Your task to perform on an android device: change keyboard looks Image 0: 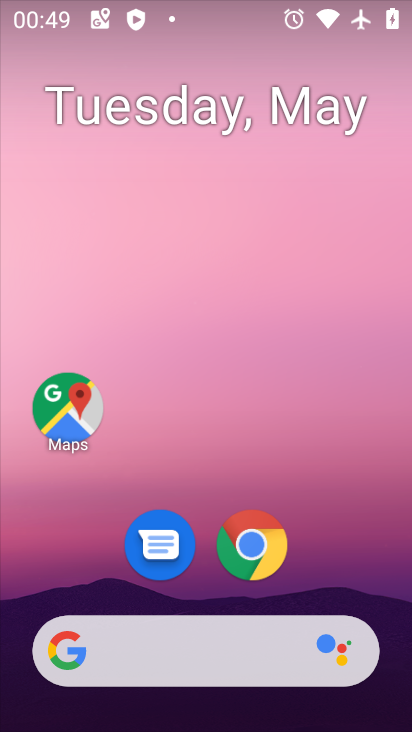
Step 0: drag from (335, 588) to (334, 38)
Your task to perform on an android device: change keyboard looks Image 1: 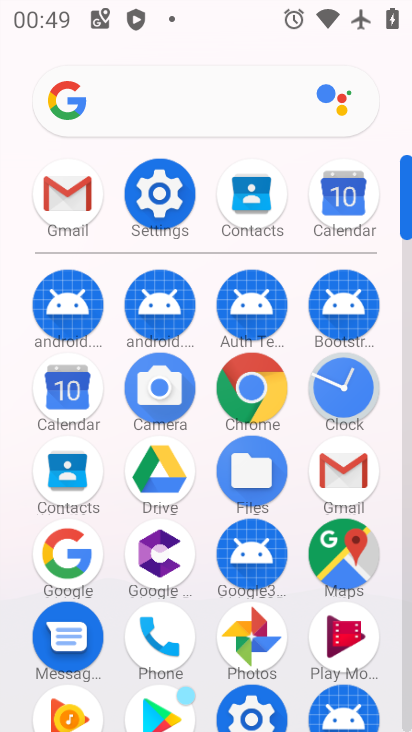
Step 1: click (159, 197)
Your task to perform on an android device: change keyboard looks Image 2: 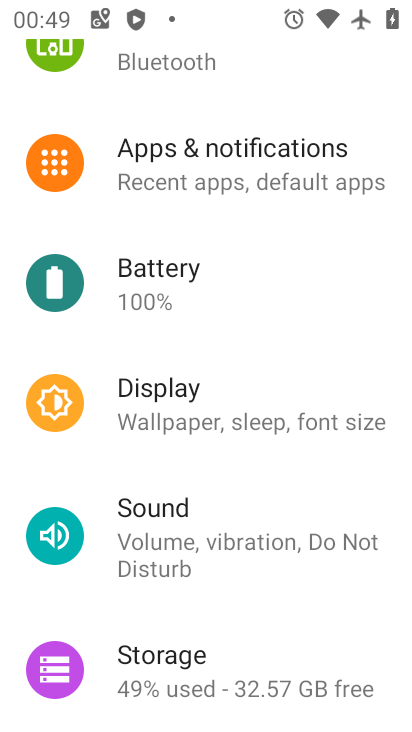
Step 2: drag from (166, 603) to (226, 277)
Your task to perform on an android device: change keyboard looks Image 3: 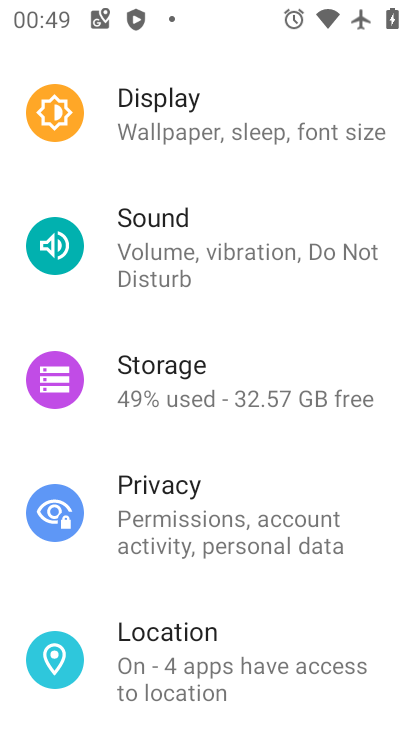
Step 3: drag from (268, 624) to (297, 279)
Your task to perform on an android device: change keyboard looks Image 4: 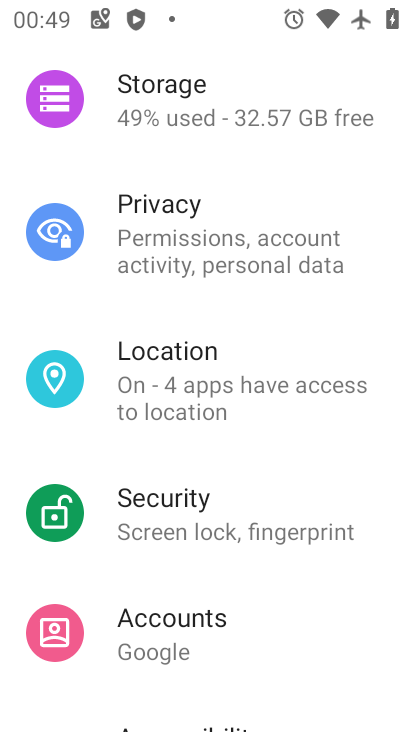
Step 4: drag from (260, 677) to (260, 448)
Your task to perform on an android device: change keyboard looks Image 5: 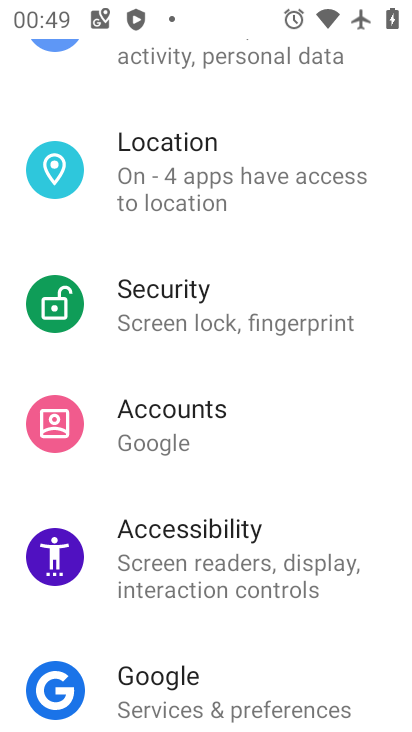
Step 5: drag from (286, 652) to (270, 464)
Your task to perform on an android device: change keyboard looks Image 6: 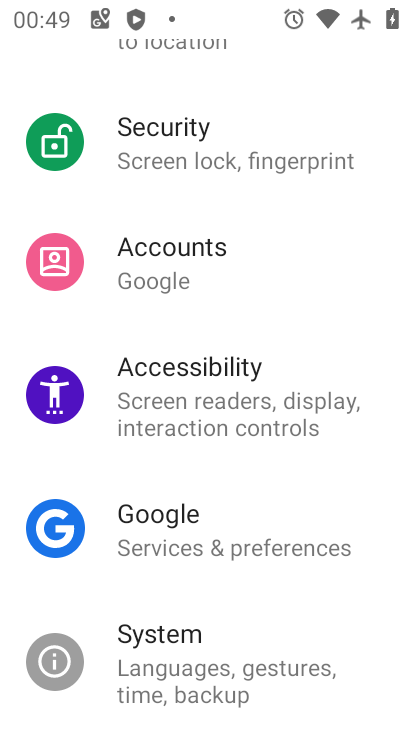
Step 6: click (244, 653)
Your task to perform on an android device: change keyboard looks Image 7: 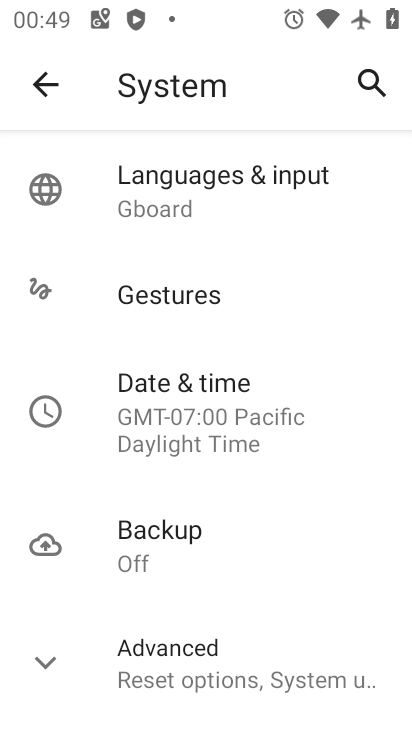
Step 7: click (218, 202)
Your task to perform on an android device: change keyboard looks Image 8: 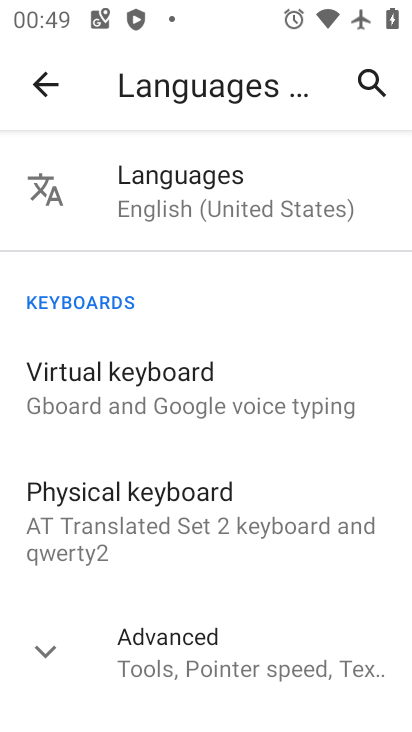
Step 8: click (150, 390)
Your task to perform on an android device: change keyboard looks Image 9: 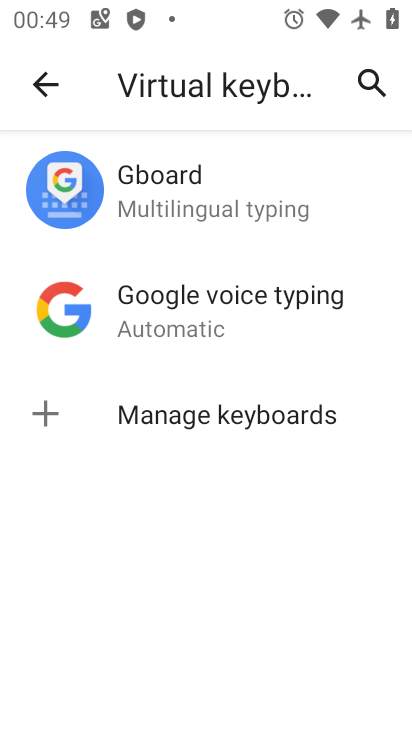
Step 9: click (161, 191)
Your task to perform on an android device: change keyboard looks Image 10: 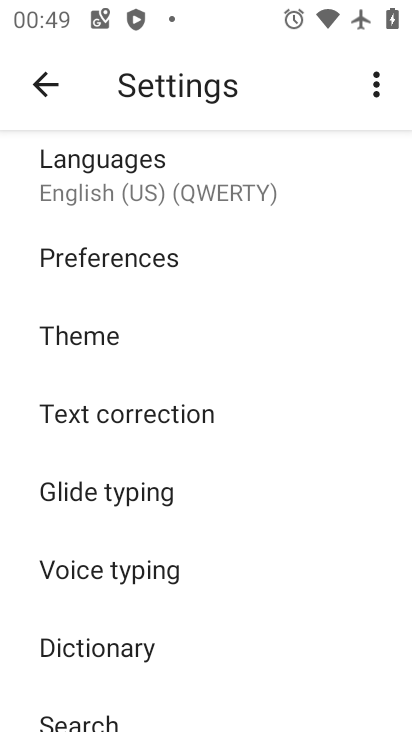
Step 10: click (135, 322)
Your task to perform on an android device: change keyboard looks Image 11: 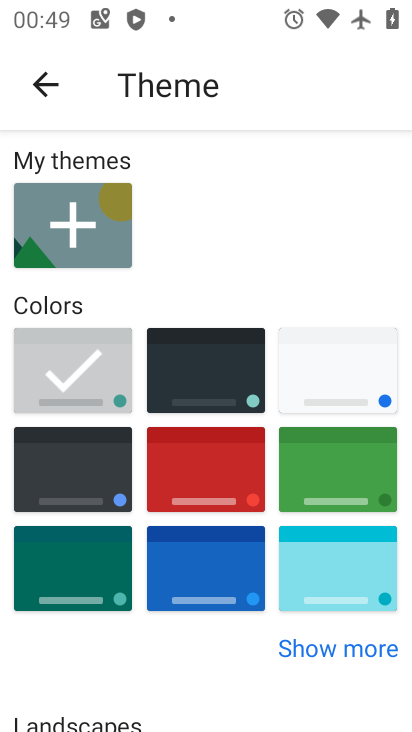
Step 11: click (208, 580)
Your task to perform on an android device: change keyboard looks Image 12: 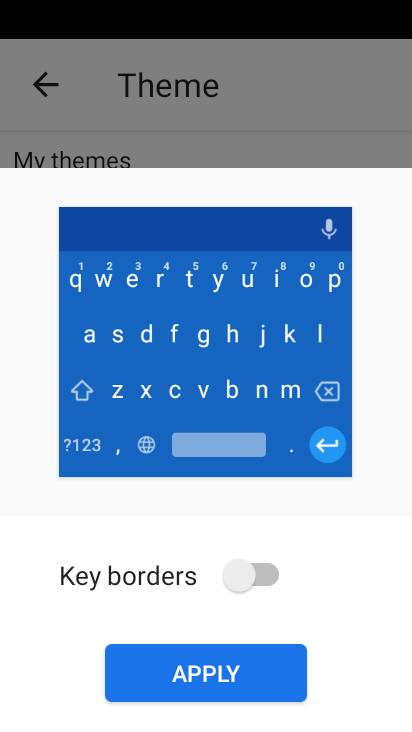
Step 12: click (197, 660)
Your task to perform on an android device: change keyboard looks Image 13: 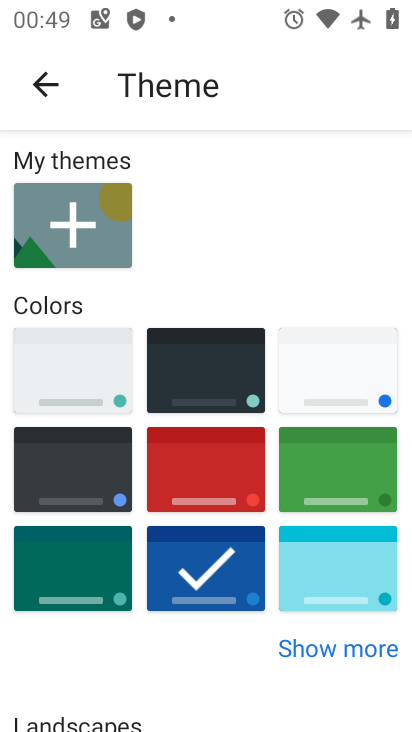
Step 13: task complete